Your task to perform on an android device: Go to privacy settings Image 0: 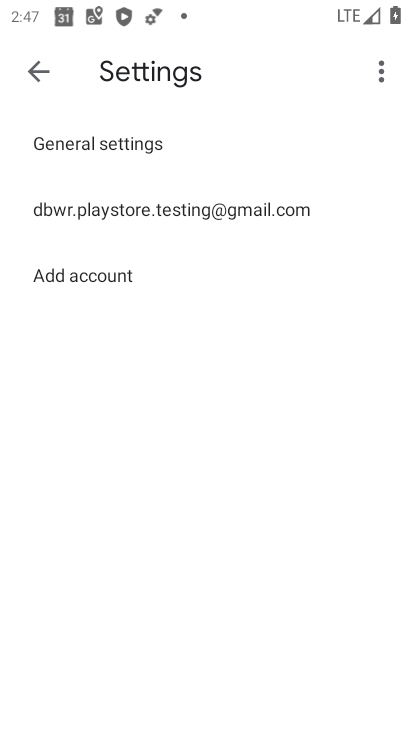
Step 0: press home button
Your task to perform on an android device: Go to privacy settings Image 1: 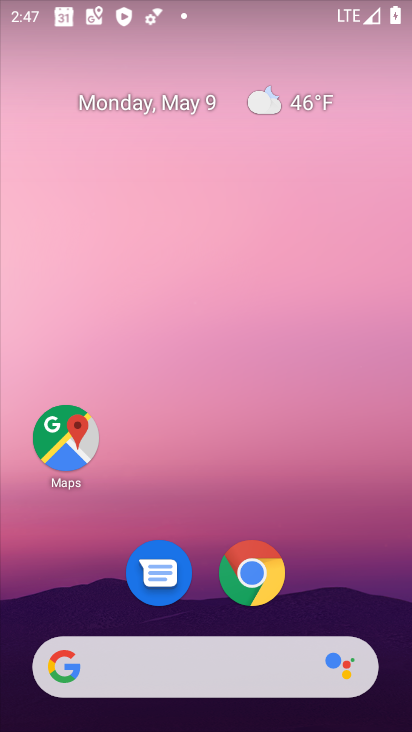
Step 1: drag from (200, 606) to (263, 133)
Your task to perform on an android device: Go to privacy settings Image 2: 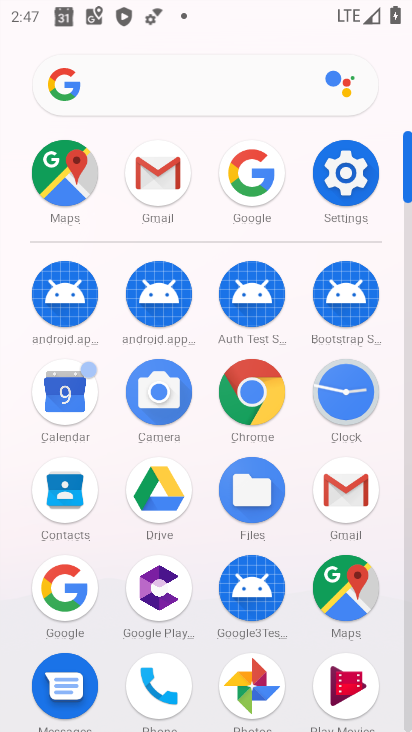
Step 2: click (251, 389)
Your task to perform on an android device: Go to privacy settings Image 3: 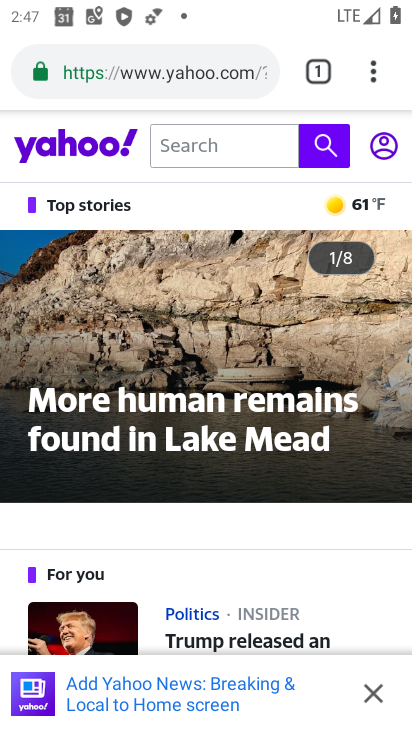
Step 3: click (366, 65)
Your task to perform on an android device: Go to privacy settings Image 4: 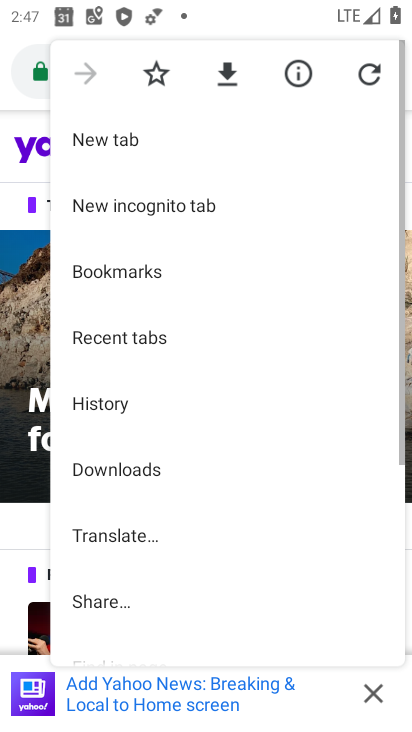
Step 4: drag from (221, 561) to (242, 156)
Your task to perform on an android device: Go to privacy settings Image 5: 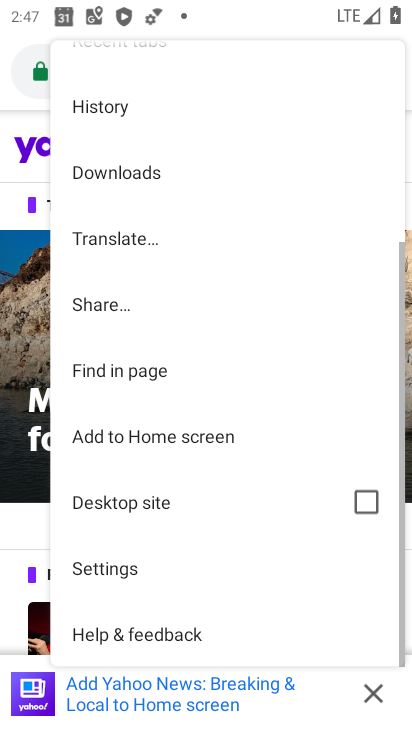
Step 5: click (104, 572)
Your task to perform on an android device: Go to privacy settings Image 6: 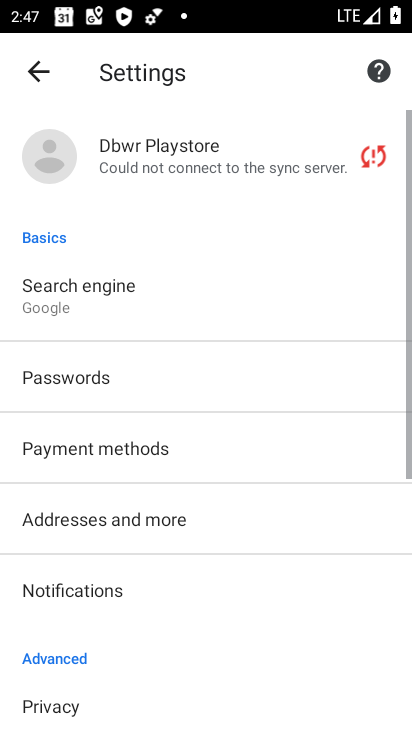
Step 6: drag from (208, 566) to (308, 201)
Your task to perform on an android device: Go to privacy settings Image 7: 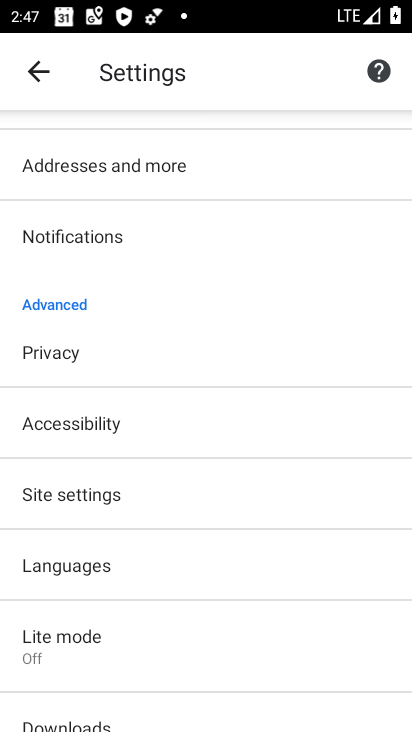
Step 7: click (70, 349)
Your task to perform on an android device: Go to privacy settings Image 8: 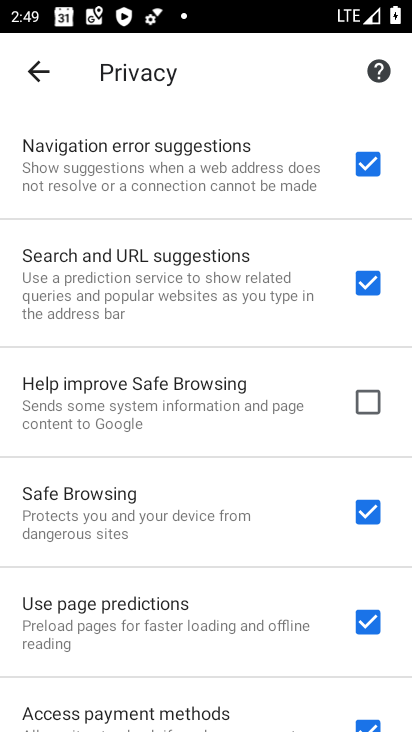
Step 8: task complete